Your task to perform on an android device: Go to CNN.com Image 0: 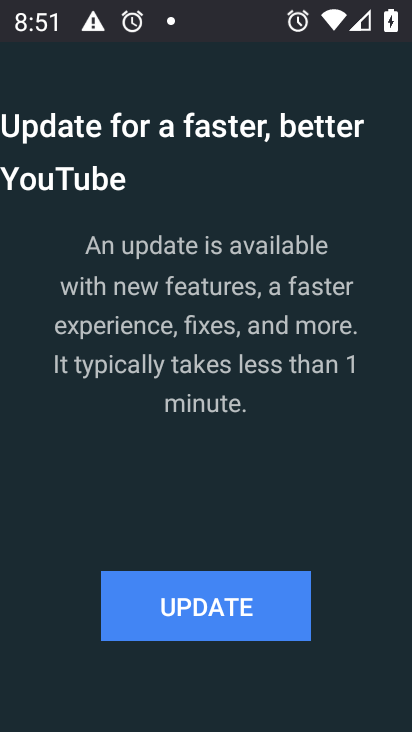
Step 0: press home button
Your task to perform on an android device: Go to CNN.com Image 1: 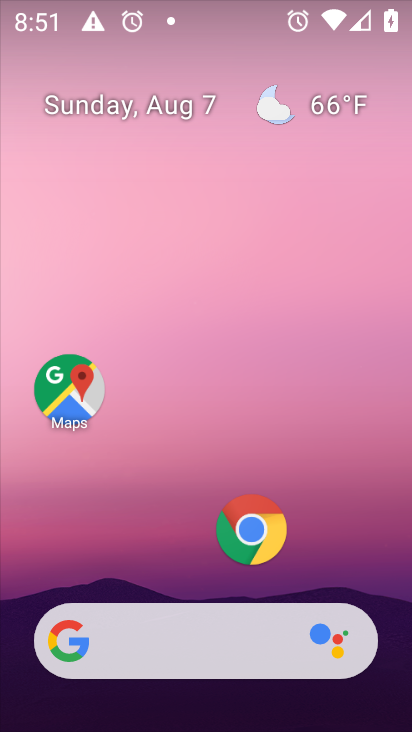
Step 1: click (251, 535)
Your task to perform on an android device: Go to CNN.com Image 2: 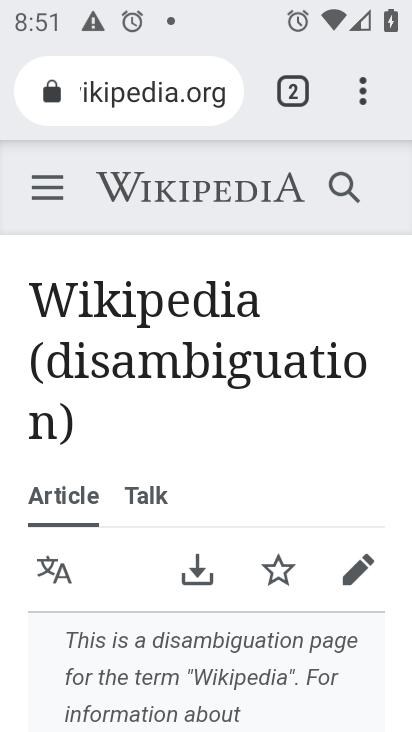
Step 2: click (156, 102)
Your task to perform on an android device: Go to CNN.com Image 3: 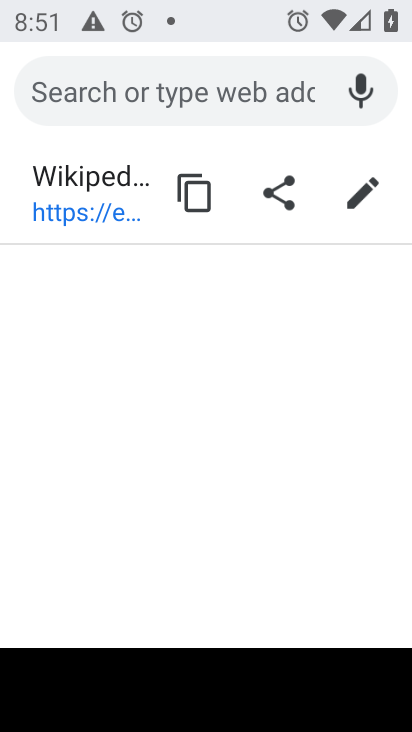
Step 3: type "CNN.com"
Your task to perform on an android device: Go to CNN.com Image 4: 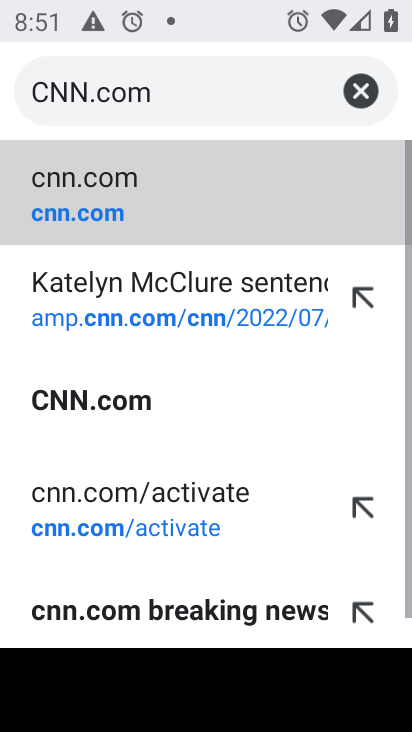
Step 4: click (104, 214)
Your task to perform on an android device: Go to CNN.com Image 5: 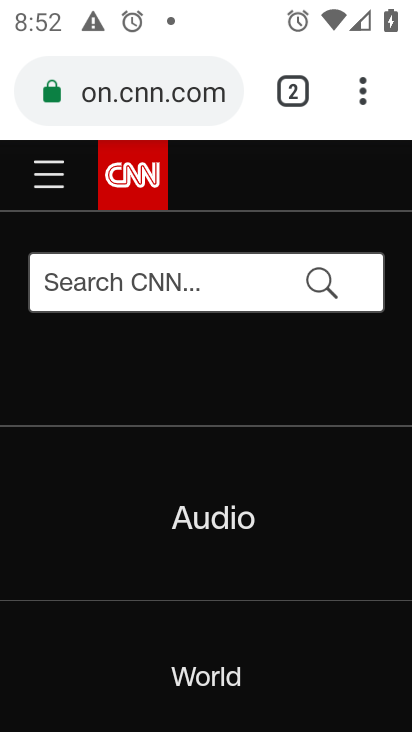
Step 5: task complete